Your task to perform on an android device: toggle data saver in the chrome app Image 0: 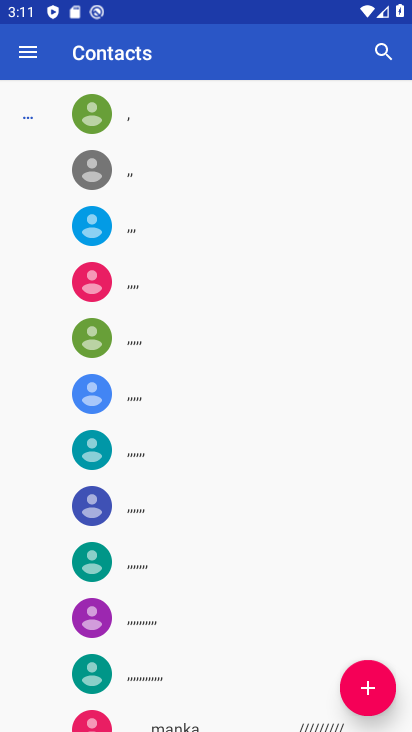
Step 0: press home button
Your task to perform on an android device: toggle data saver in the chrome app Image 1: 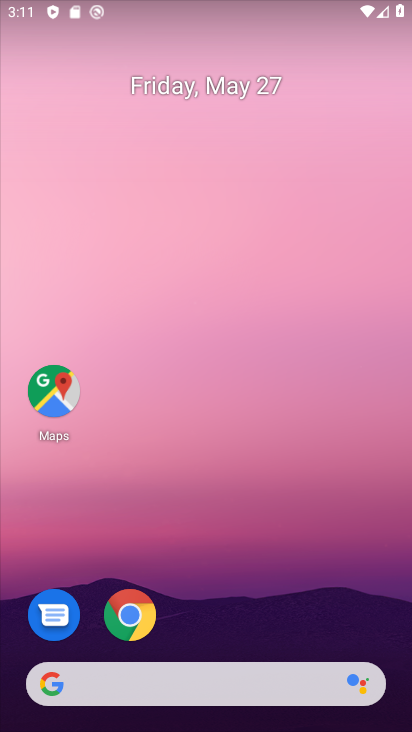
Step 1: click (136, 632)
Your task to perform on an android device: toggle data saver in the chrome app Image 2: 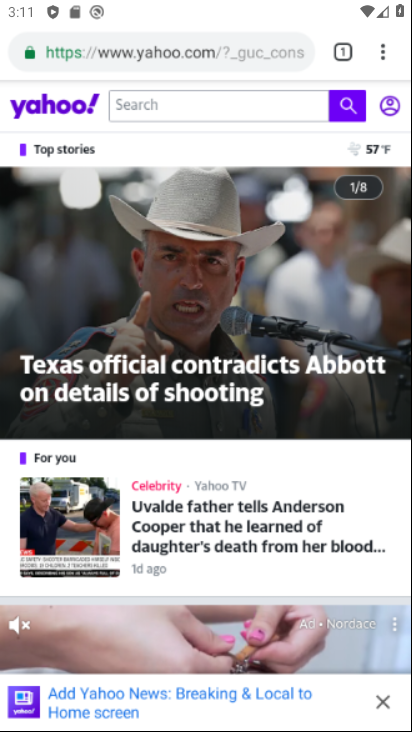
Step 2: click (383, 46)
Your task to perform on an android device: toggle data saver in the chrome app Image 3: 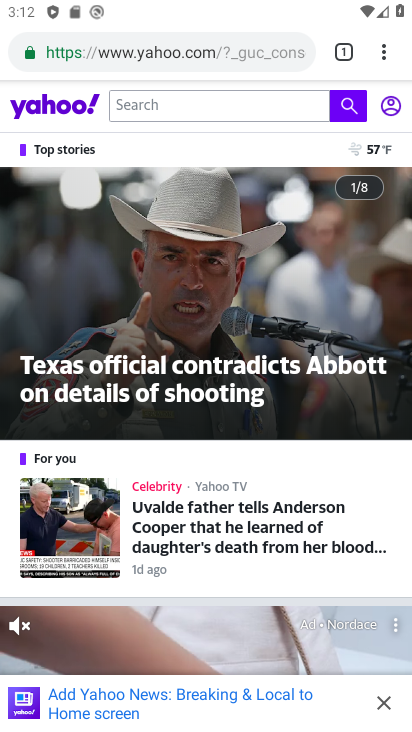
Step 3: click (382, 59)
Your task to perform on an android device: toggle data saver in the chrome app Image 4: 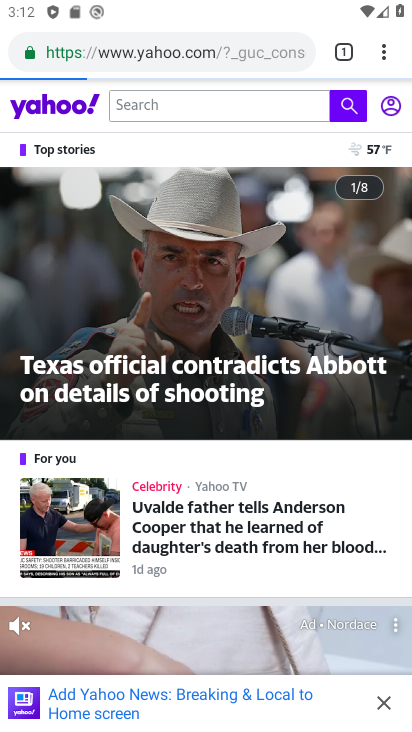
Step 4: click (384, 53)
Your task to perform on an android device: toggle data saver in the chrome app Image 5: 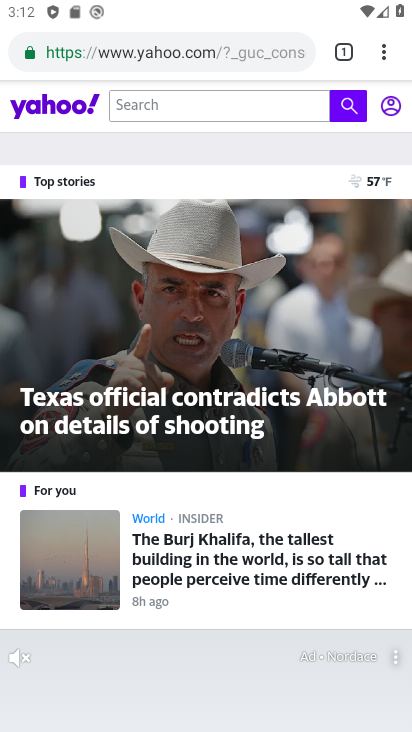
Step 5: click (381, 45)
Your task to perform on an android device: toggle data saver in the chrome app Image 6: 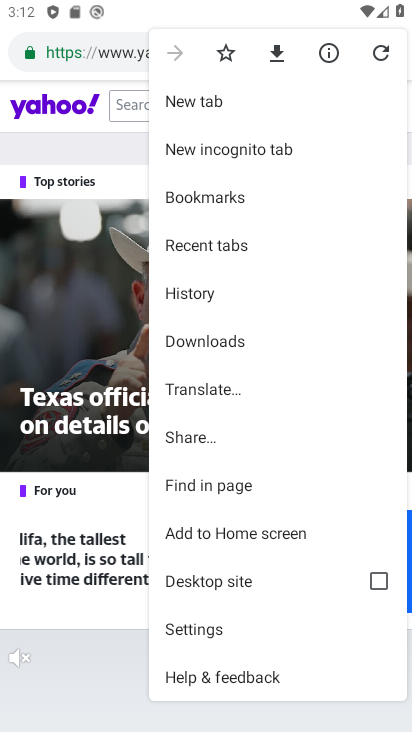
Step 6: click (206, 626)
Your task to perform on an android device: toggle data saver in the chrome app Image 7: 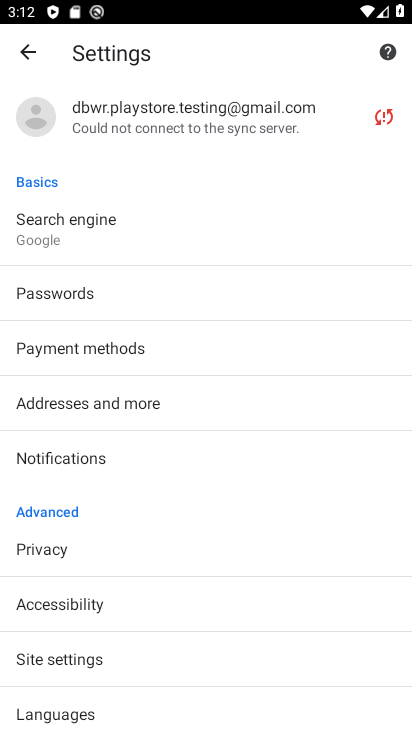
Step 7: drag from (158, 692) to (227, 218)
Your task to perform on an android device: toggle data saver in the chrome app Image 8: 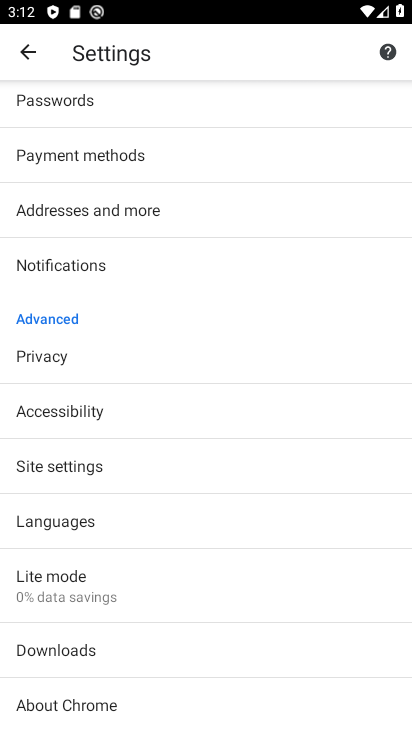
Step 8: click (64, 588)
Your task to perform on an android device: toggle data saver in the chrome app Image 9: 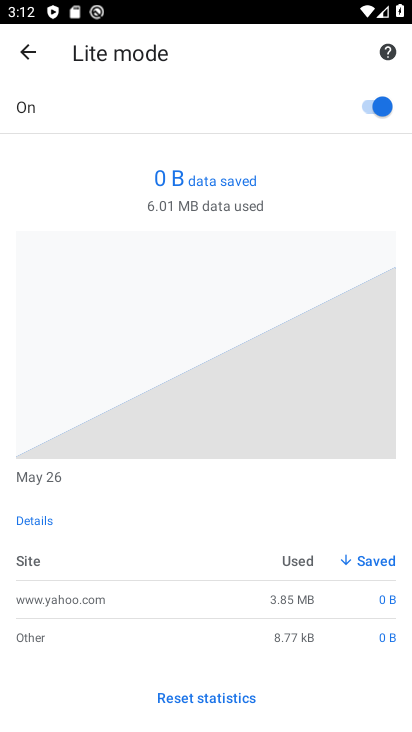
Step 9: click (383, 105)
Your task to perform on an android device: toggle data saver in the chrome app Image 10: 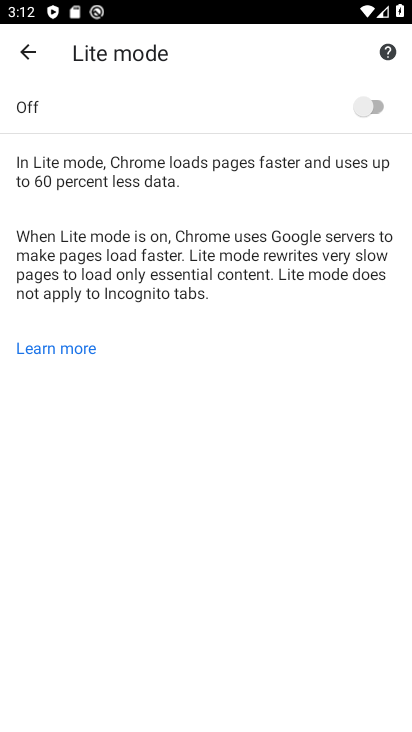
Step 10: task complete